Your task to perform on an android device: Open battery settings Image 0: 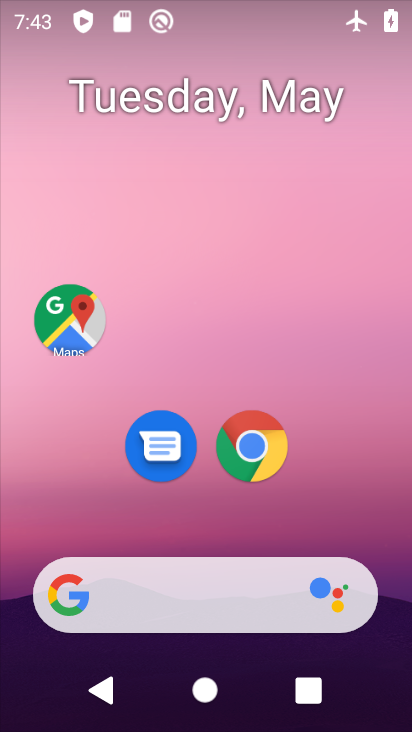
Step 0: drag from (397, 569) to (387, 7)
Your task to perform on an android device: Open battery settings Image 1: 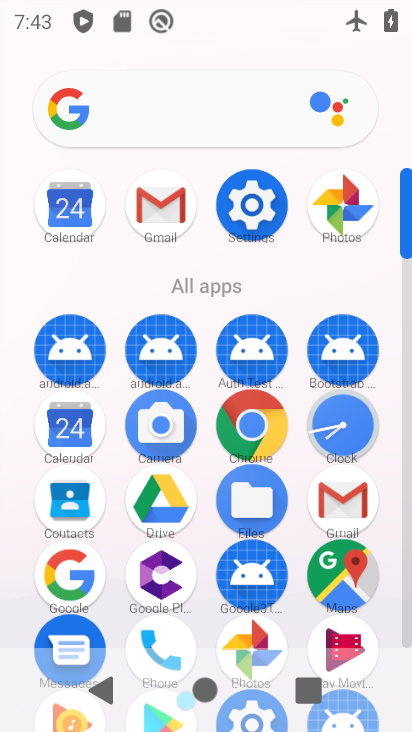
Step 1: click (256, 205)
Your task to perform on an android device: Open battery settings Image 2: 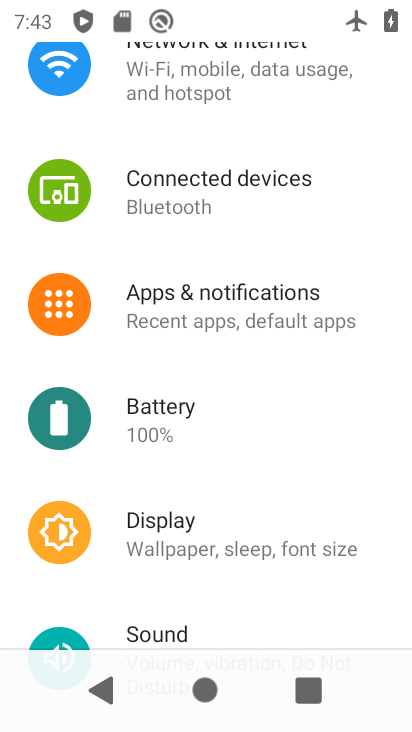
Step 2: click (157, 418)
Your task to perform on an android device: Open battery settings Image 3: 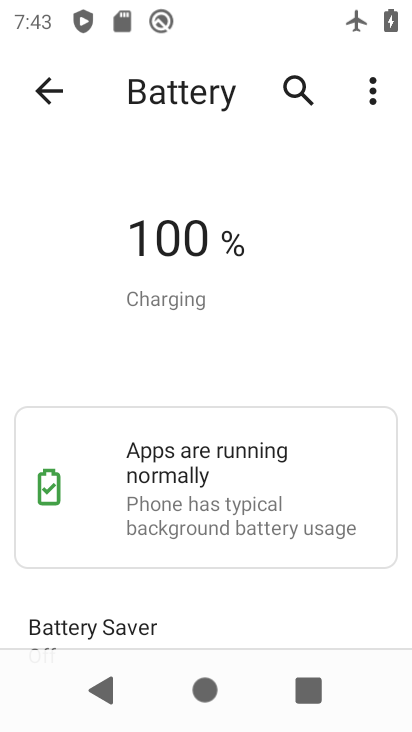
Step 3: task complete